Your task to perform on an android device: Open maps Image 0: 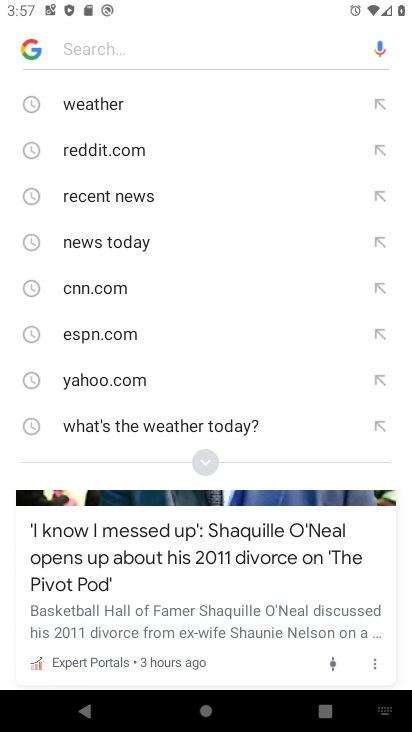
Step 0: press home button
Your task to perform on an android device: Open maps Image 1: 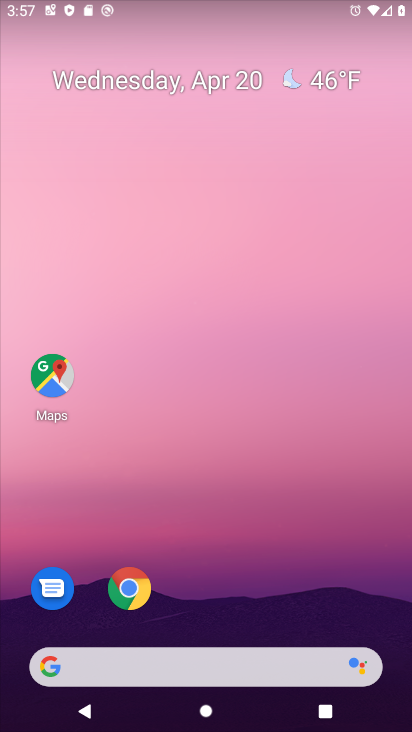
Step 1: click (61, 377)
Your task to perform on an android device: Open maps Image 2: 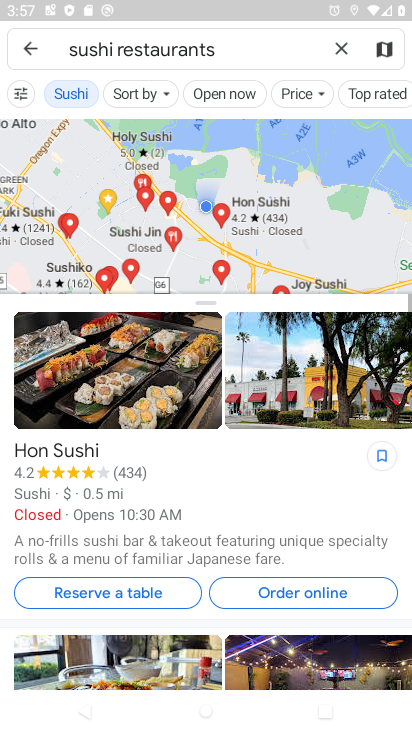
Step 2: task complete